Your task to perform on an android device: empty trash in google photos Image 0: 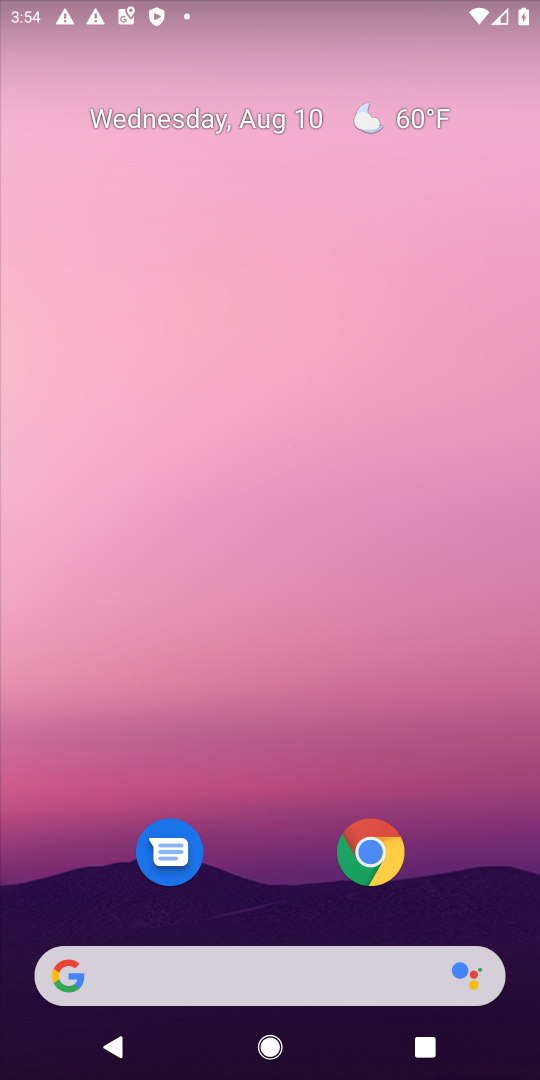
Step 0: drag from (261, 879) to (407, 42)
Your task to perform on an android device: empty trash in google photos Image 1: 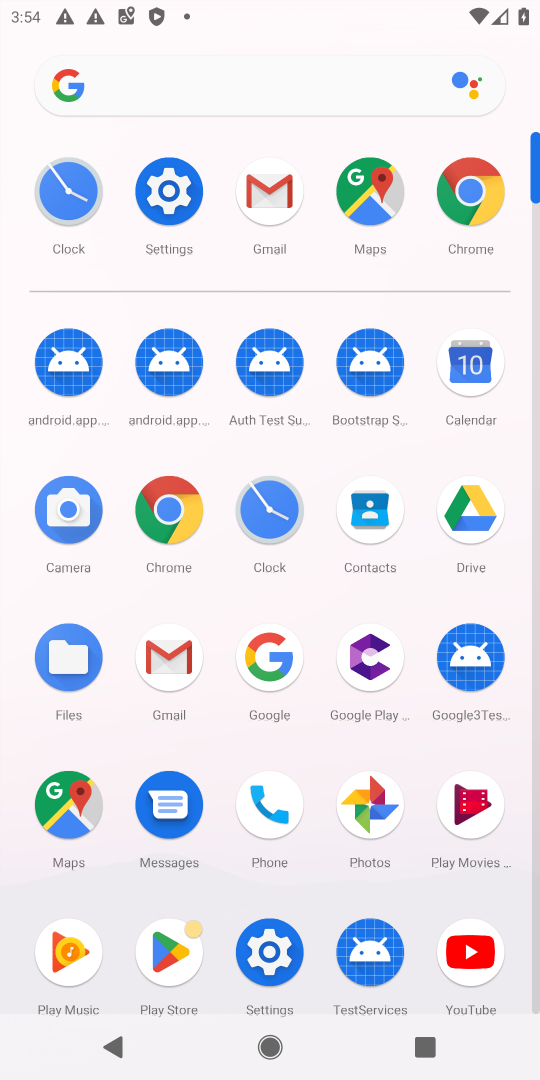
Step 1: click (383, 809)
Your task to perform on an android device: empty trash in google photos Image 2: 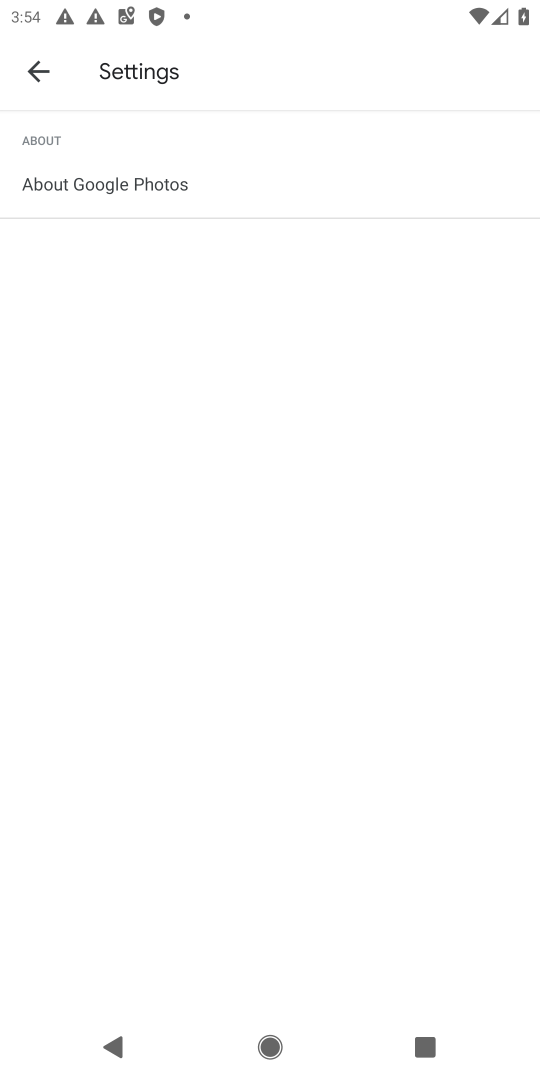
Step 2: click (36, 55)
Your task to perform on an android device: empty trash in google photos Image 3: 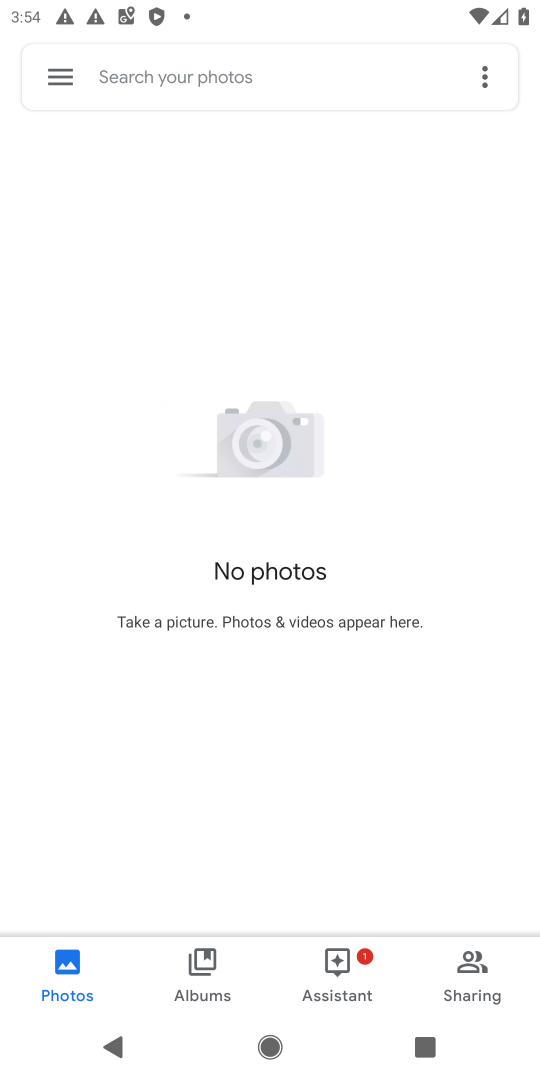
Step 3: task complete